Your task to perform on an android device: Go to sound settings Image 0: 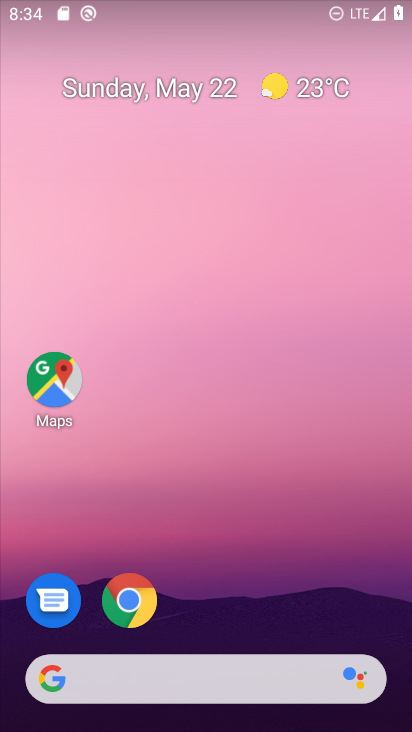
Step 0: drag from (288, 380) to (245, 59)
Your task to perform on an android device: Go to sound settings Image 1: 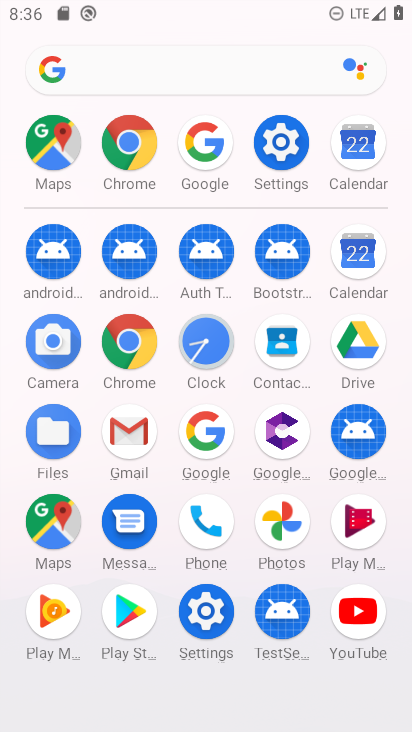
Step 1: click (191, 620)
Your task to perform on an android device: Go to sound settings Image 2: 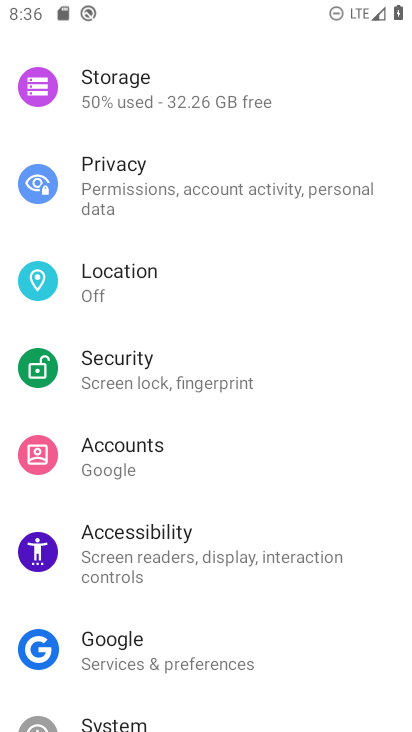
Step 2: drag from (216, 201) to (213, 625)
Your task to perform on an android device: Go to sound settings Image 3: 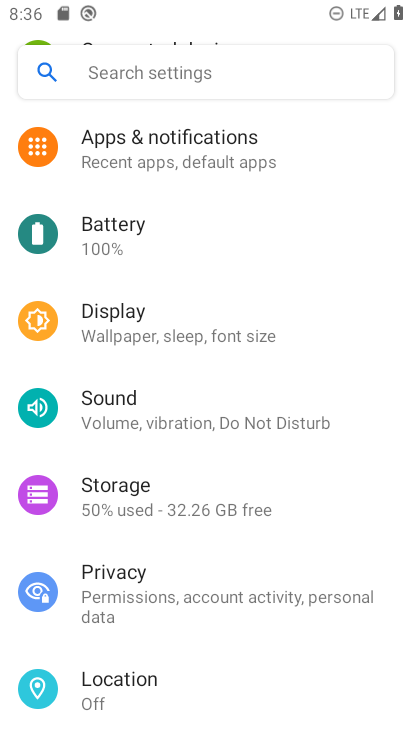
Step 3: drag from (159, 583) to (210, 288)
Your task to perform on an android device: Go to sound settings Image 4: 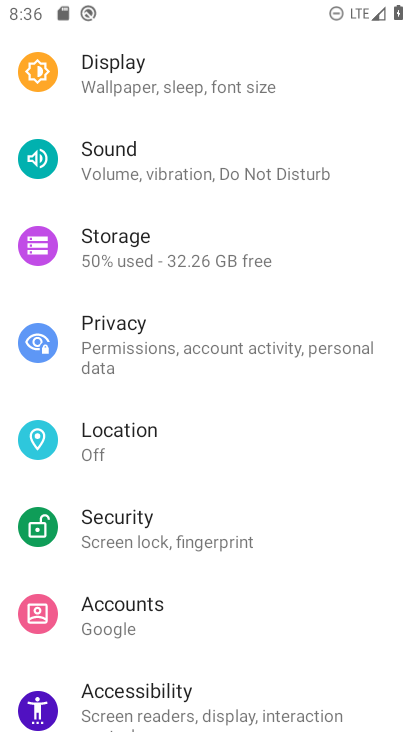
Step 4: drag from (146, 624) to (167, 156)
Your task to perform on an android device: Go to sound settings Image 5: 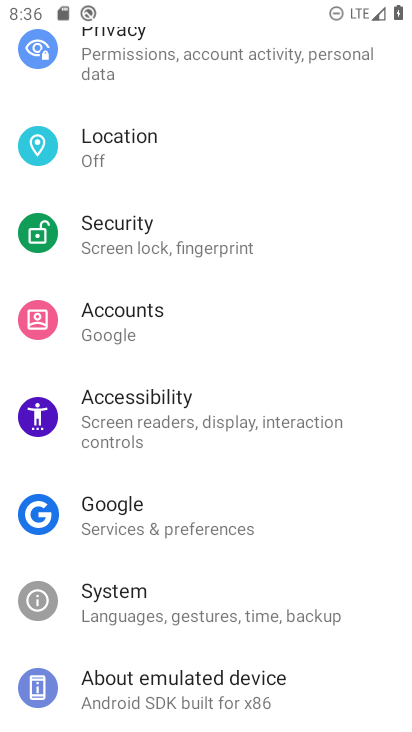
Step 5: drag from (193, 141) to (181, 730)
Your task to perform on an android device: Go to sound settings Image 6: 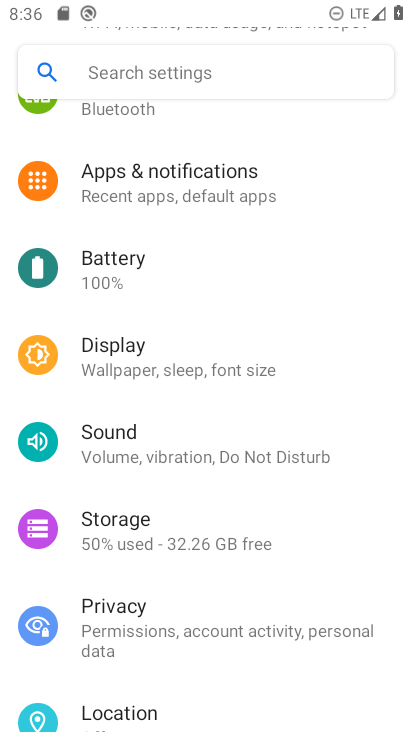
Step 6: click (140, 435)
Your task to perform on an android device: Go to sound settings Image 7: 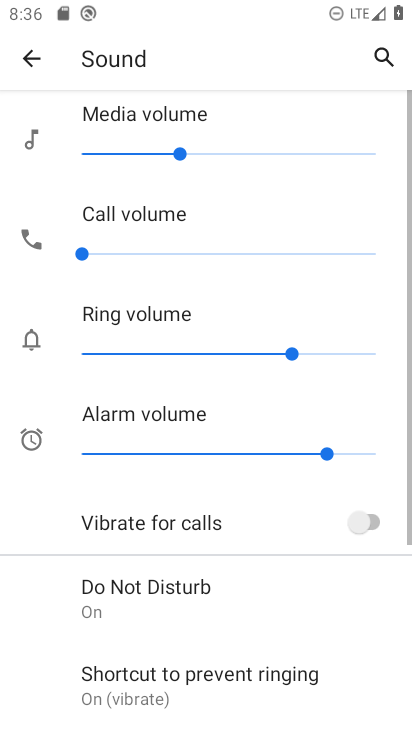
Step 7: task complete